Your task to perform on an android device: Open Reddit.com Image 0: 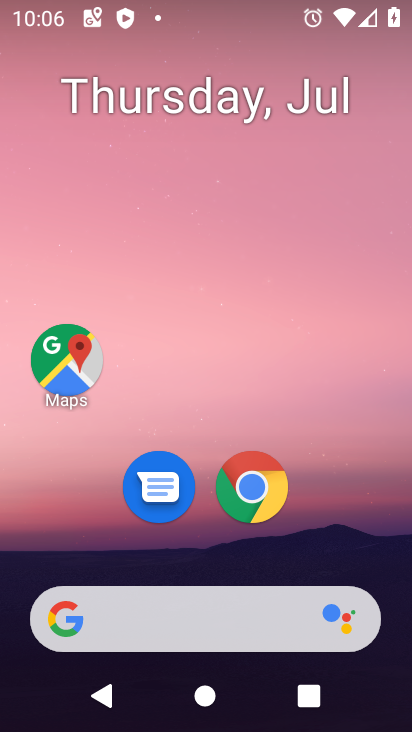
Step 0: drag from (258, 538) to (264, 209)
Your task to perform on an android device: Open Reddit.com Image 1: 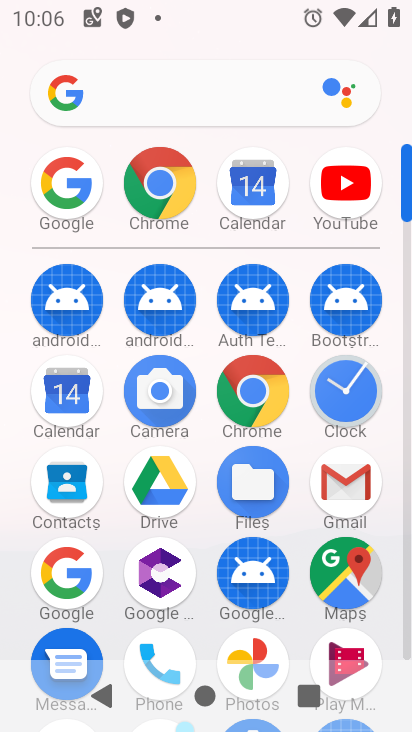
Step 1: click (173, 197)
Your task to perform on an android device: Open Reddit.com Image 2: 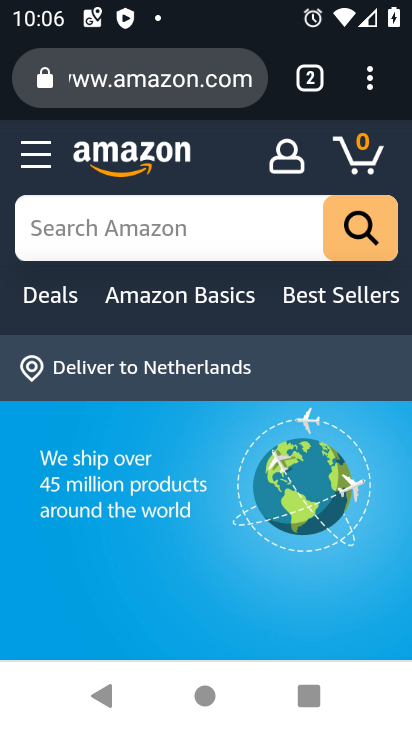
Step 2: click (173, 96)
Your task to perform on an android device: Open Reddit.com Image 3: 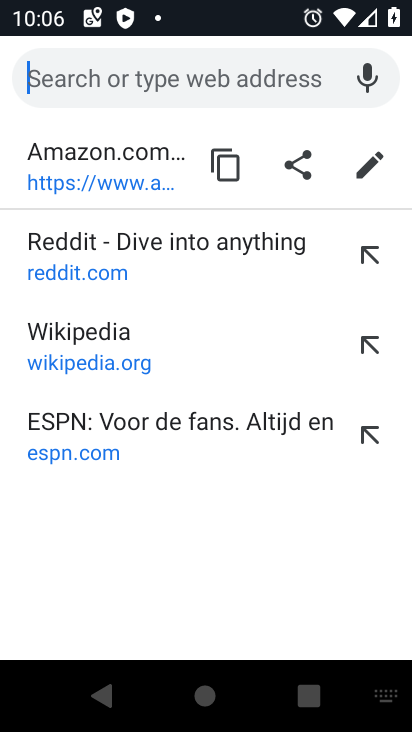
Step 3: click (186, 262)
Your task to perform on an android device: Open Reddit.com Image 4: 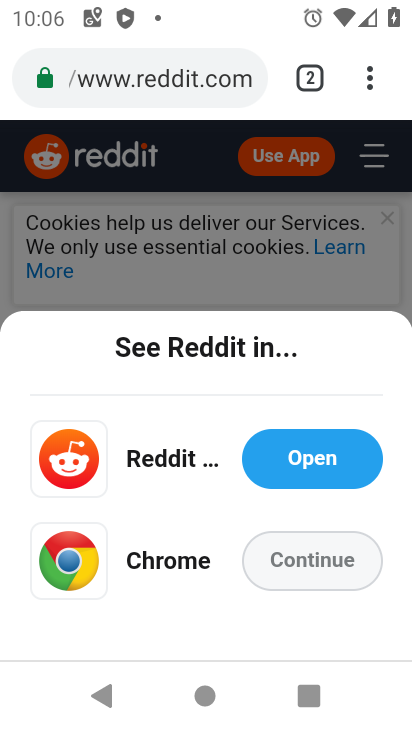
Step 4: task complete